Your task to perform on an android device: stop showing notifications on the lock screen Image 0: 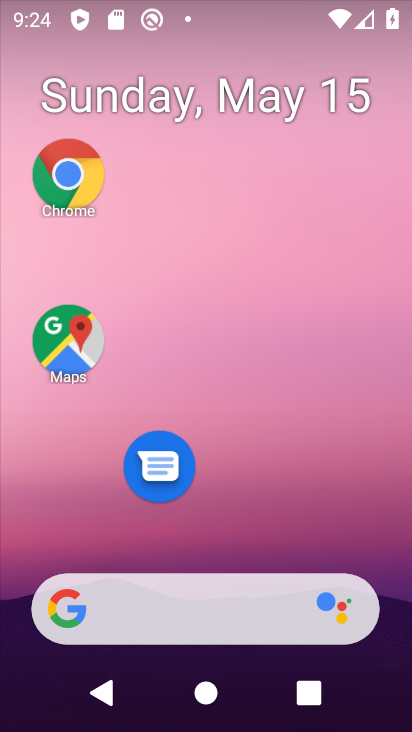
Step 0: drag from (241, 501) to (159, 9)
Your task to perform on an android device: stop showing notifications on the lock screen Image 1: 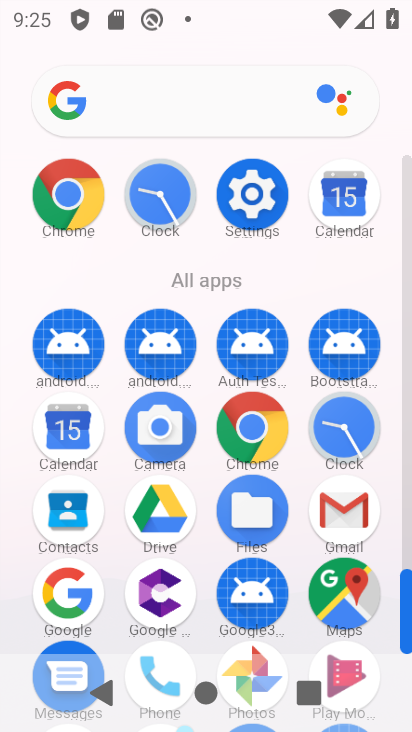
Step 1: click (244, 195)
Your task to perform on an android device: stop showing notifications on the lock screen Image 2: 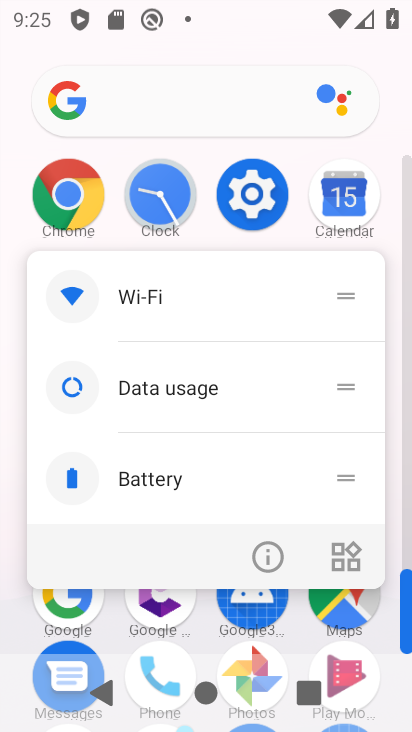
Step 2: click (248, 198)
Your task to perform on an android device: stop showing notifications on the lock screen Image 3: 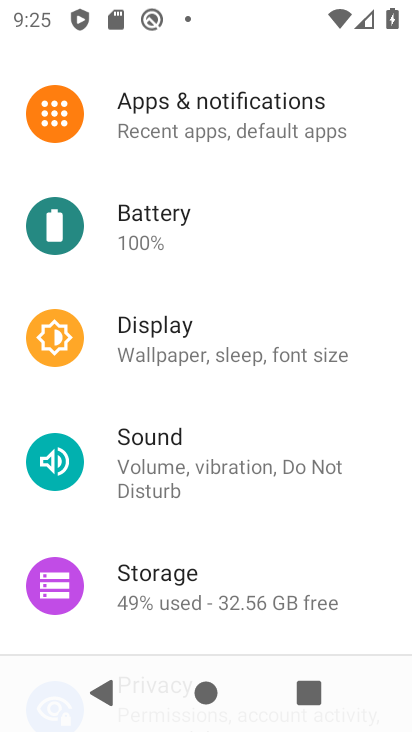
Step 3: click (250, 120)
Your task to perform on an android device: stop showing notifications on the lock screen Image 4: 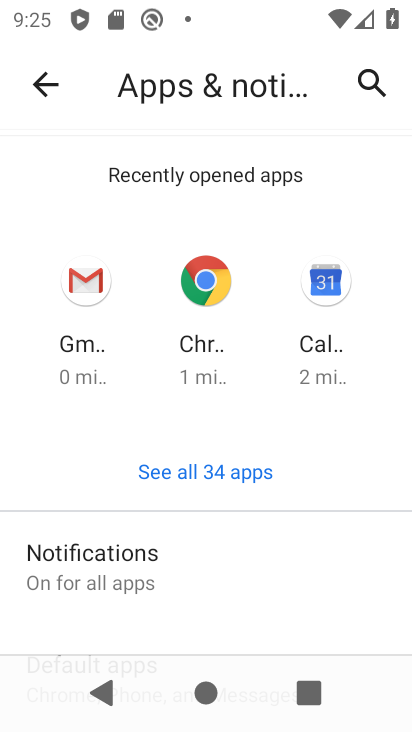
Step 4: drag from (278, 469) to (230, 134)
Your task to perform on an android device: stop showing notifications on the lock screen Image 5: 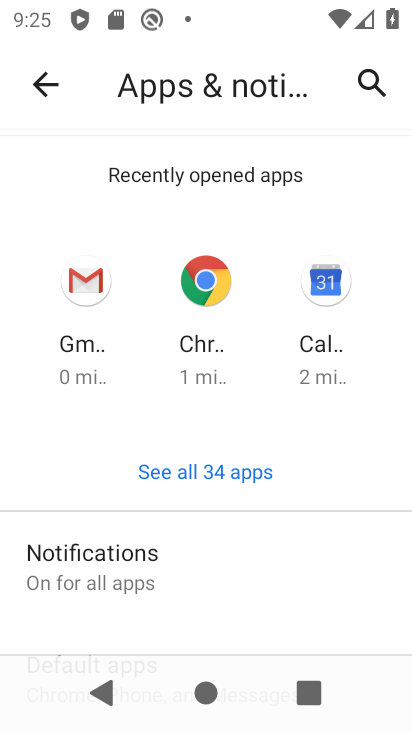
Step 5: drag from (167, 609) to (91, 215)
Your task to perform on an android device: stop showing notifications on the lock screen Image 6: 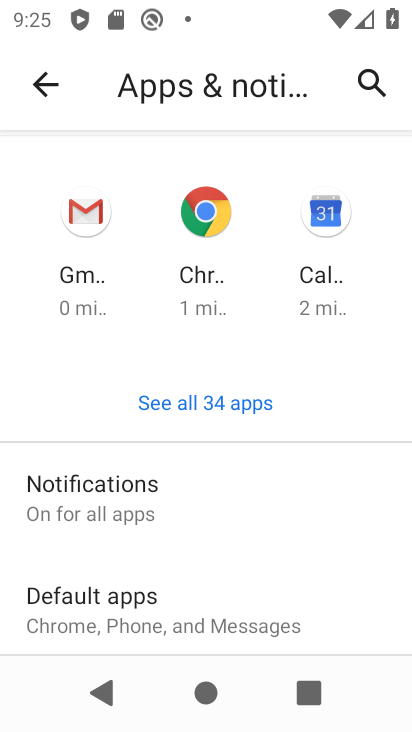
Step 6: drag from (195, 550) to (92, 186)
Your task to perform on an android device: stop showing notifications on the lock screen Image 7: 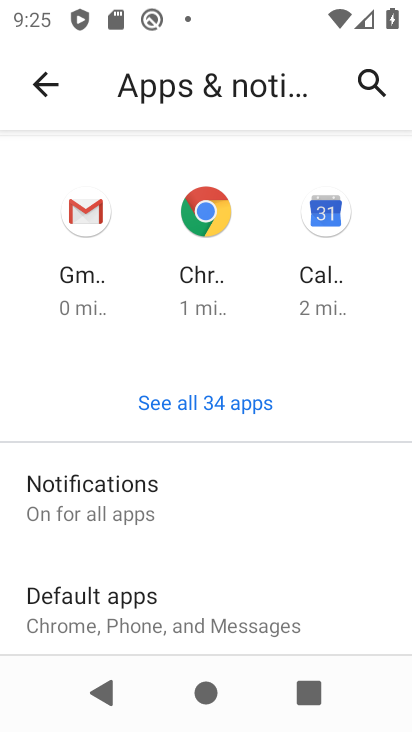
Step 7: drag from (209, 557) to (185, 138)
Your task to perform on an android device: stop showing notifications on the lock screen Image 8: 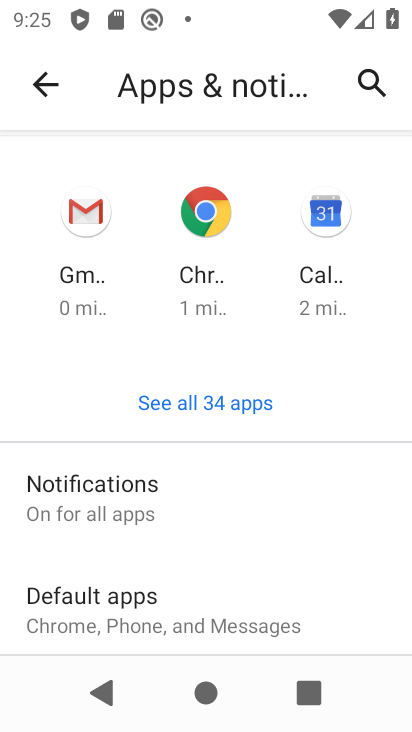
Step 8: click (68, 503)
Your task to perform on an android device: stop showing notifications on the lock screen Image 9: 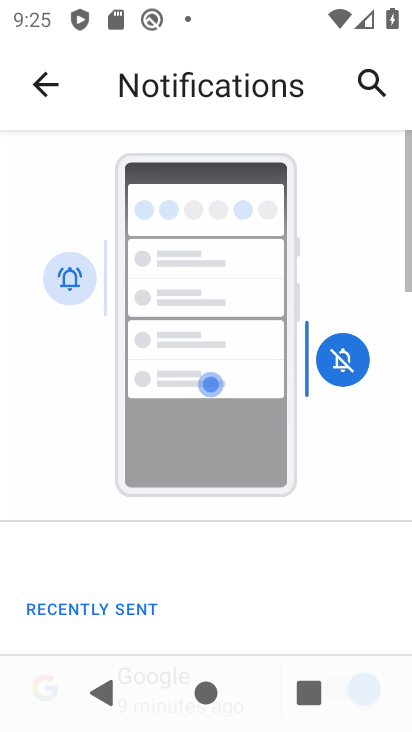
Step 9: drag from (284, 584) to (211, 0)
Your task to perform on an android device: stop showing notifications on the lock screen Image 10: 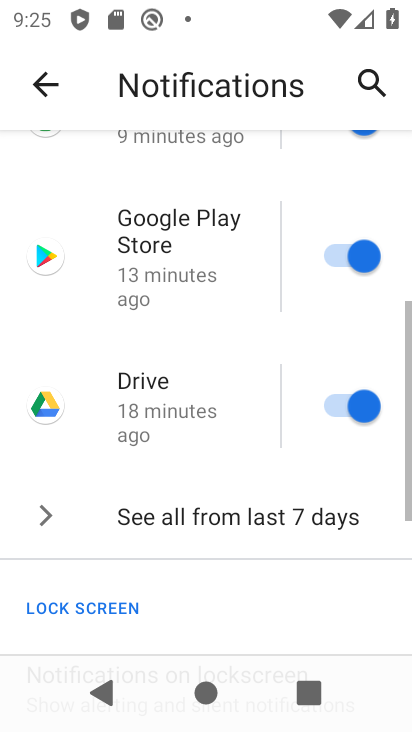
Step 10: drag from (360, 616) to (239, 36)
Your task to perform on an android device: stop showing notifications on the lock screen Image 11: 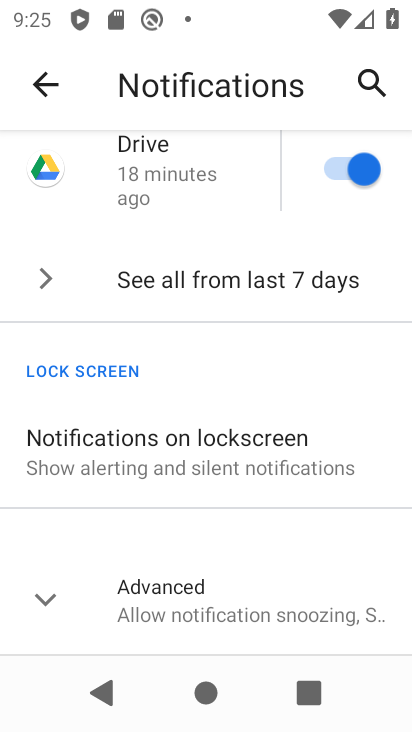
Step 11: click (206, 433)
Your task to perform on an android device: stop showing notifications on the lock screen Image 12: 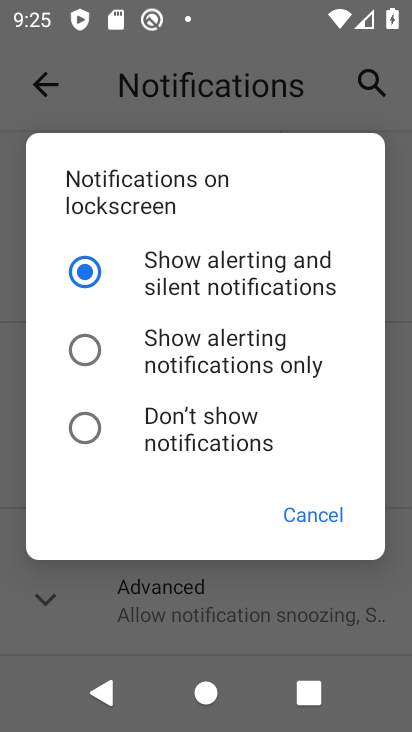
Step 12: click (188, 448)
Your task to perform on an android device: stop showing notifications on the lock screen Image 13: 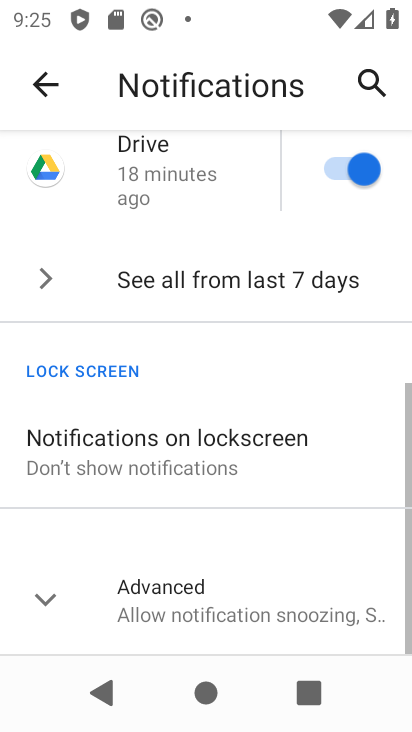
Step 13: task complete